Your task to perform on an android device: open app "Indeed Job Search" (install if not already installed) and go to login screen Image 0: 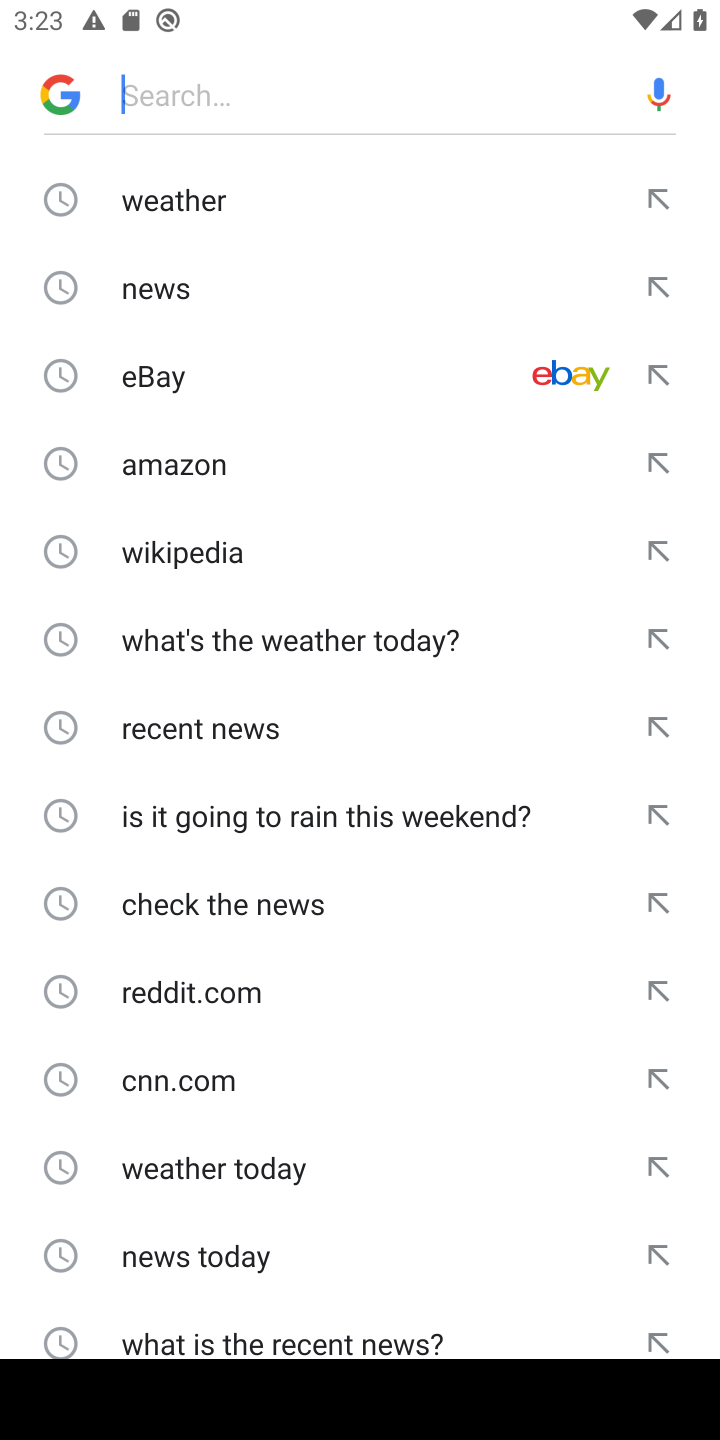
Step 0: press home button
Your task to perform on an android device: open app "Indeed Job Search" (install if not already installed) and go to login screen Image 1: 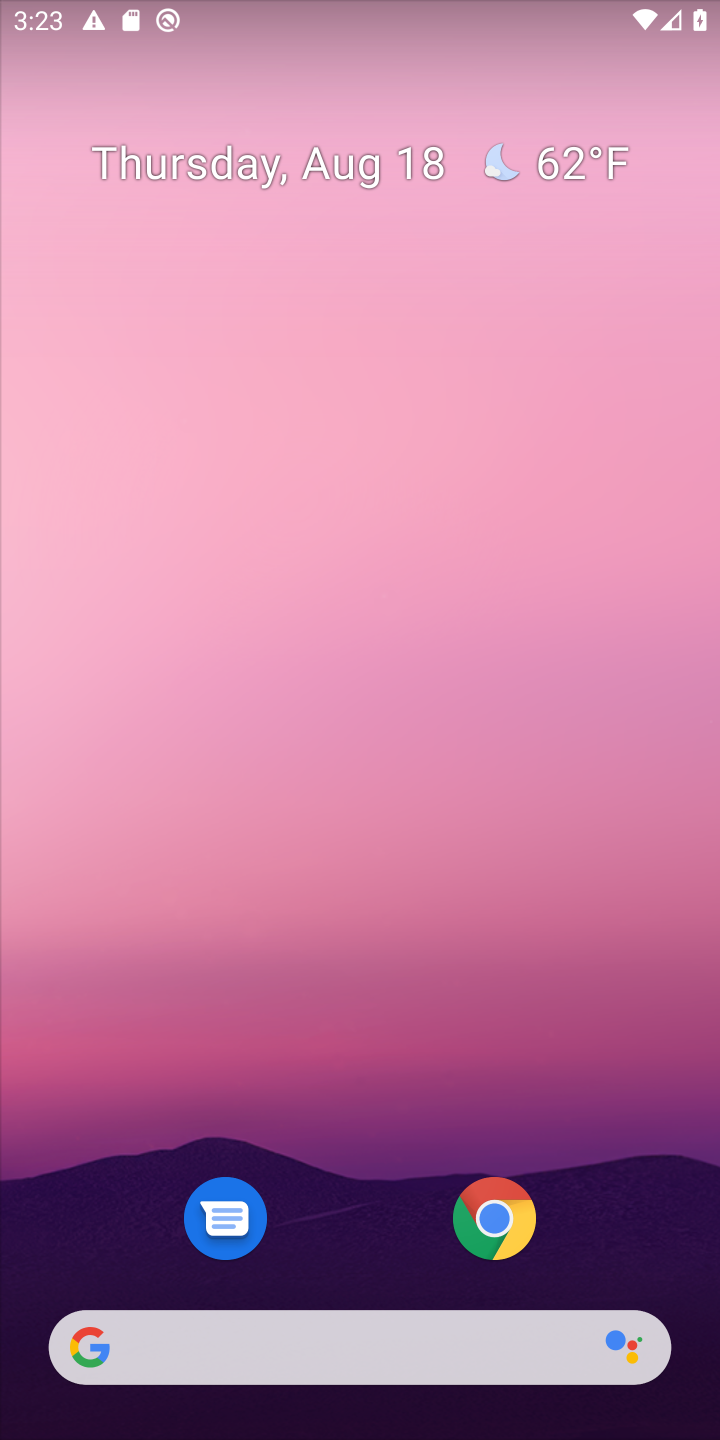
Step 1: drag from (343, 984) to (343, 411)
Your task to perform on an android device: open app "Indeed Job Search" (install if not already installed) and go to login screen Image 2: 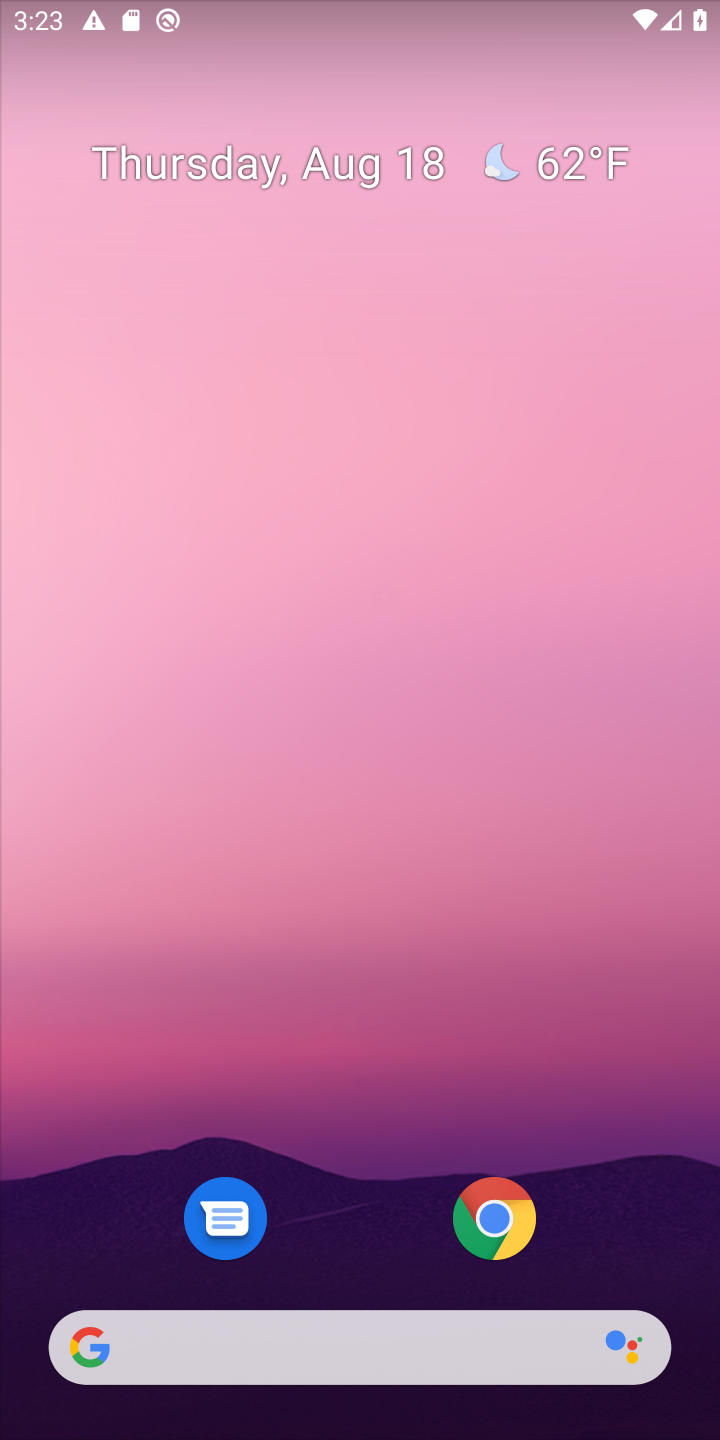
Step 2: drag from (386, 1087) to (391, 328)
Your task to perform on an android device: open app "Indeed Job Search" (install if not already installed) and go to login screen Image 3: 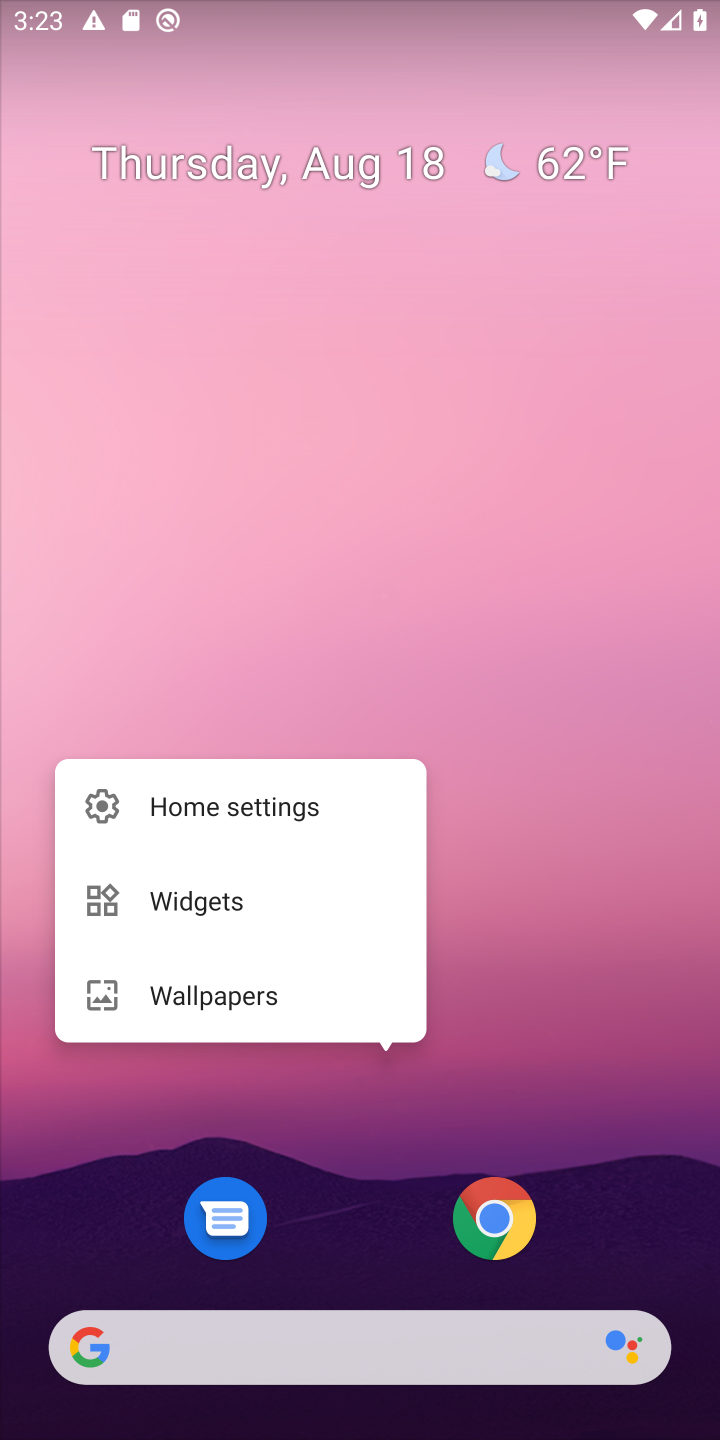
Step 3: click (405, 477)
Your task to perform on an android device: open app "Indeed Job Search" (install if not already installed) and go to login screen Image 4: 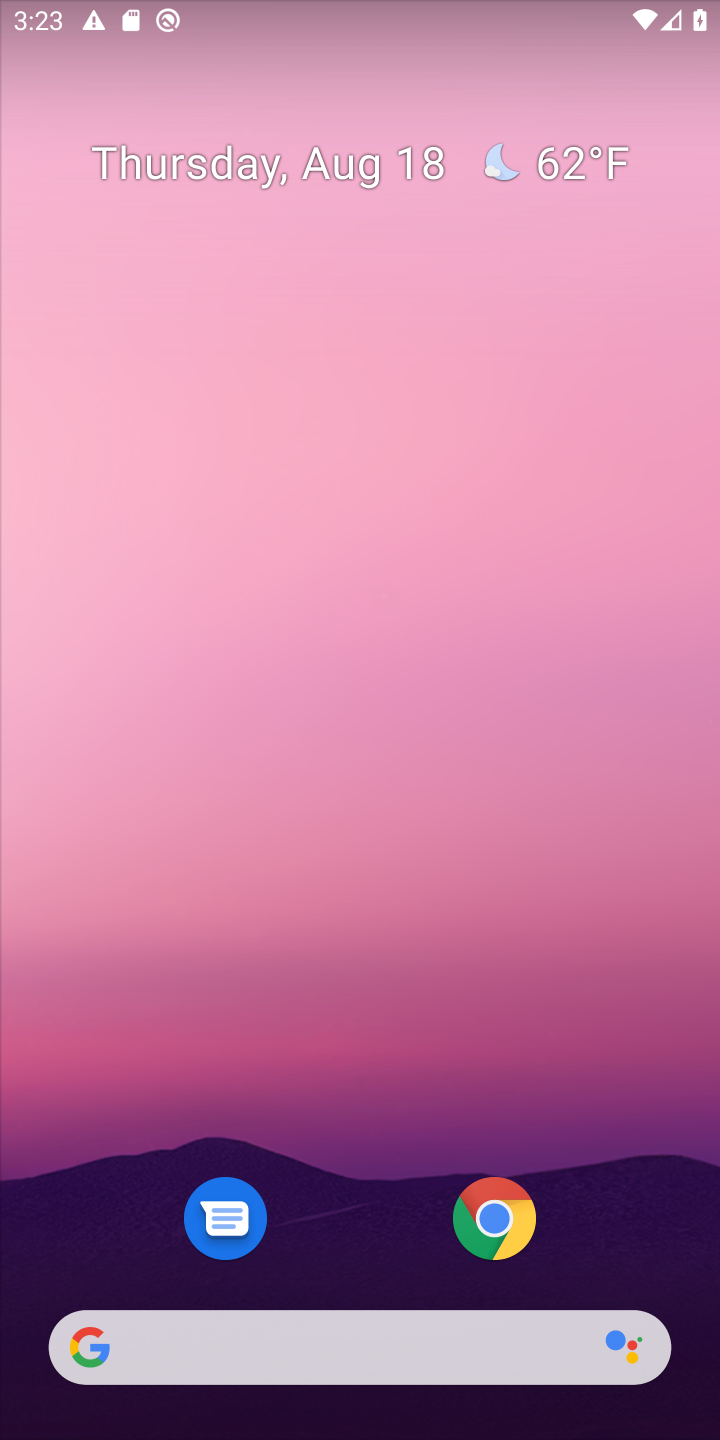
Step 4: drag from (353, 905) to (391, 305)
Your task to perform on an android device: open app "Indeed Job Search" (install if not already installed) and go to login screen Image 5: 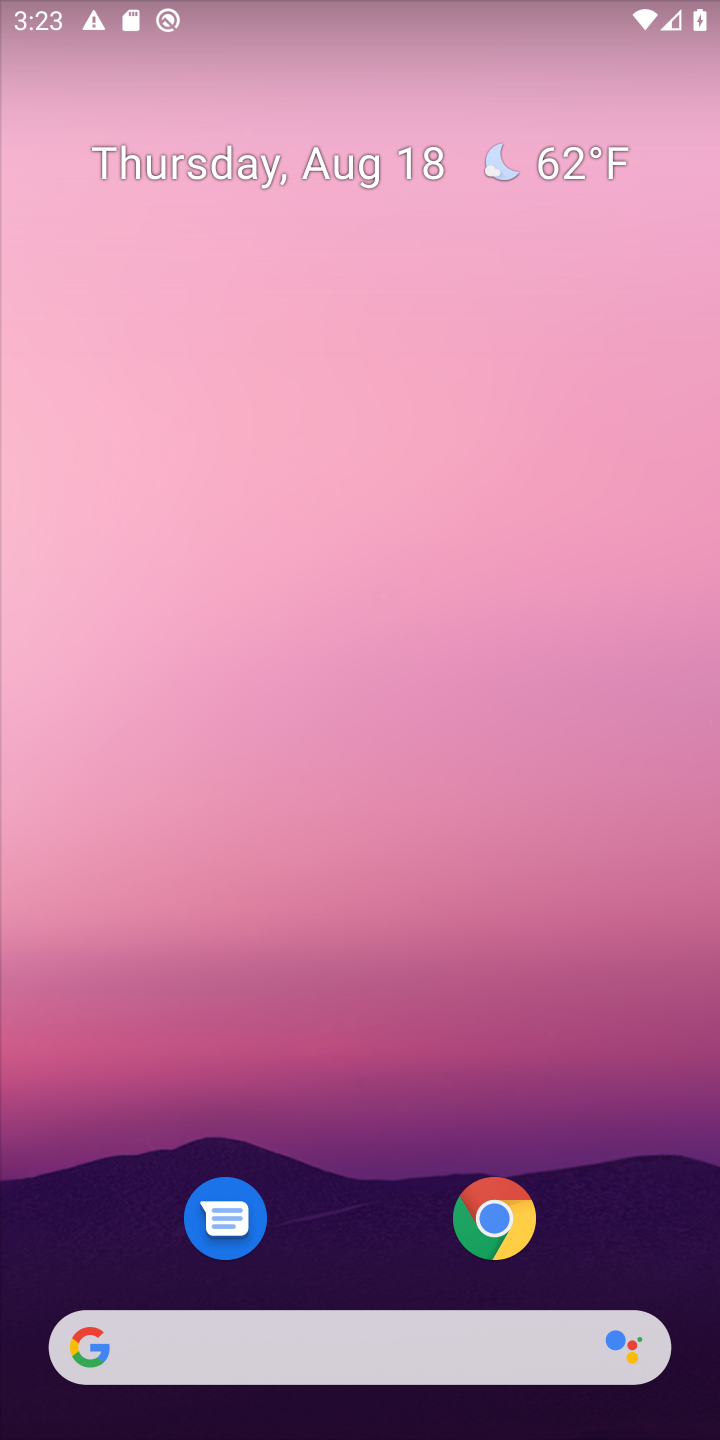
Step 5: drag from (348, 883) to (364, 198)
Your task to perform on an android device: open app "Indeed Job Search" (install if not already installed) and go to login screen Image 6: 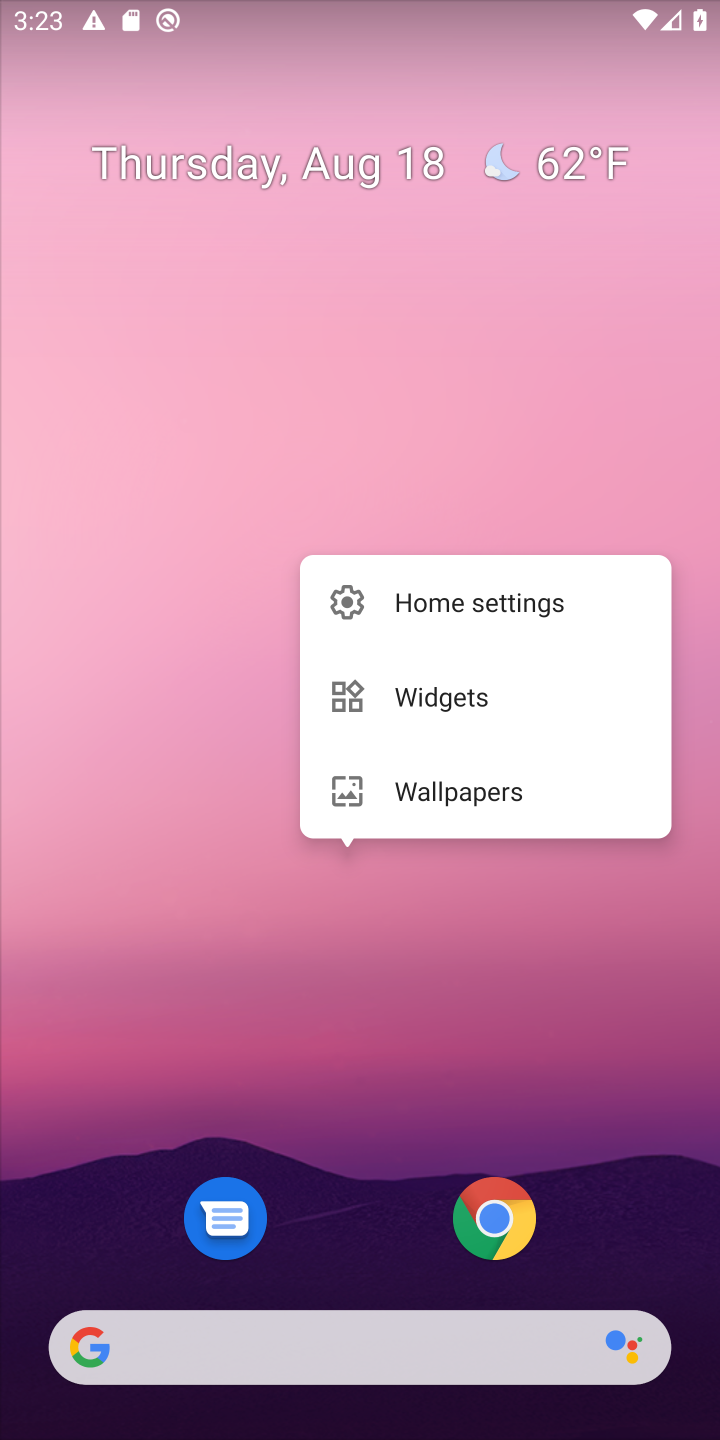
Step 6: click (297, 950)
Your task to perform on an android device: open app "Indeed Job Search" (install if not already installed) and go to login screen Image 7: 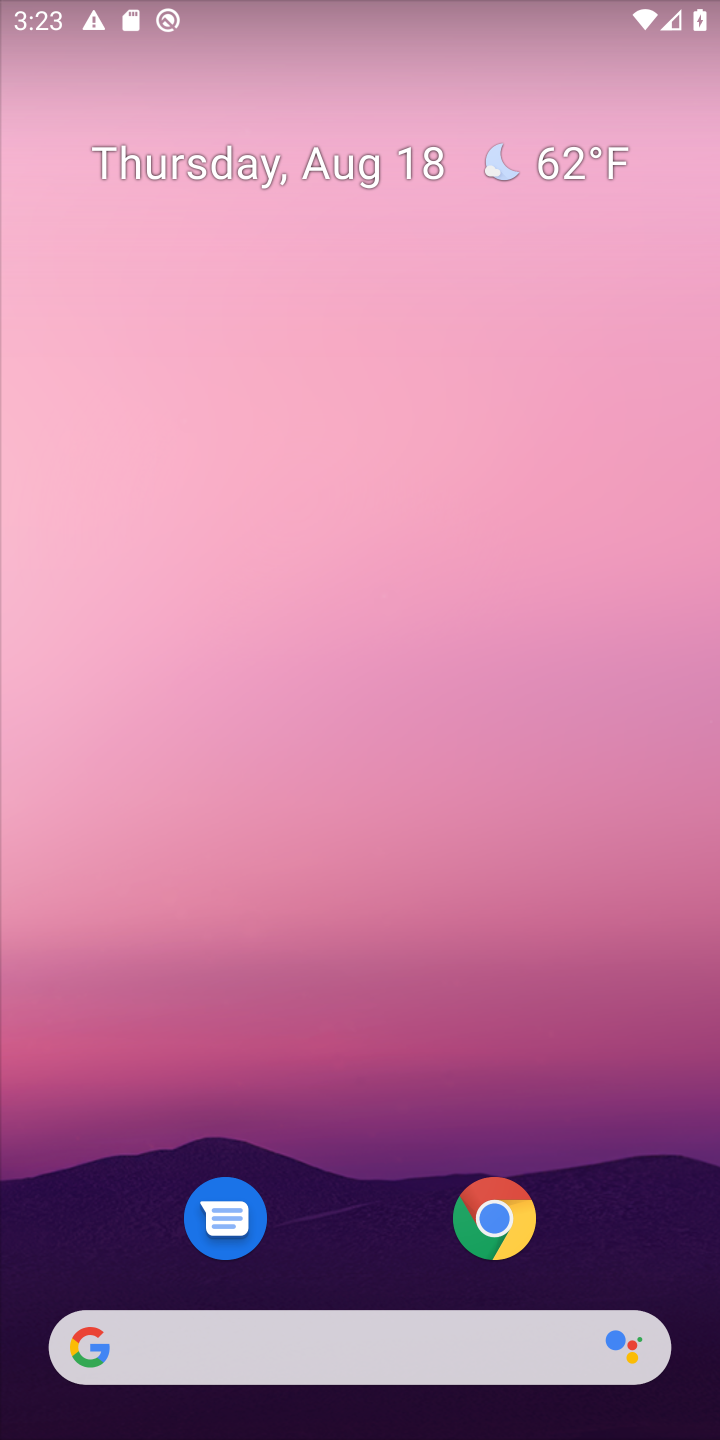
Step 7: drag from (352, 1158) to (369, 259)
Your task to perform on an android device: open app "Indeed Job Search" (install if not already installed) and go to login screen Image 8: 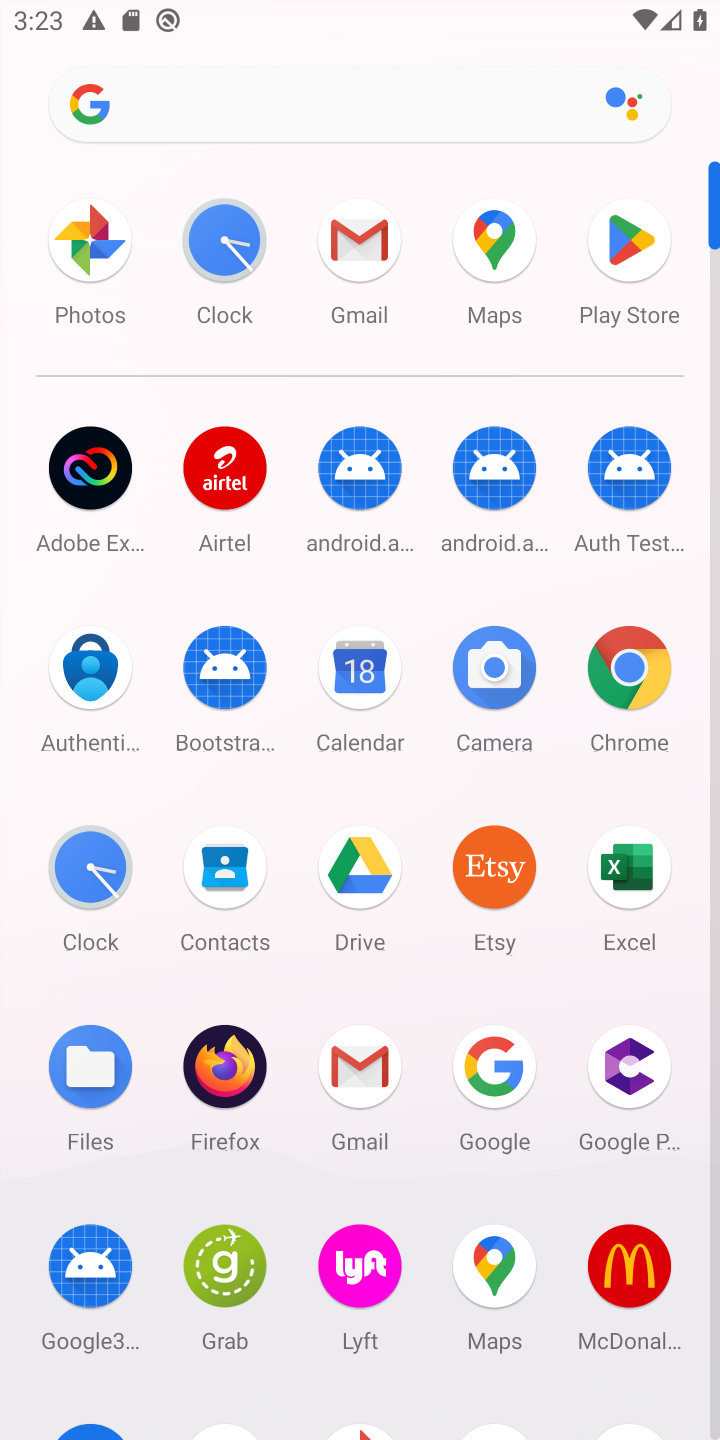
Step 8: click (640, 273)
Your task to perform on an android device: open app "Indeed Job Search" (install if not already installed) and go to login screen Image 9: 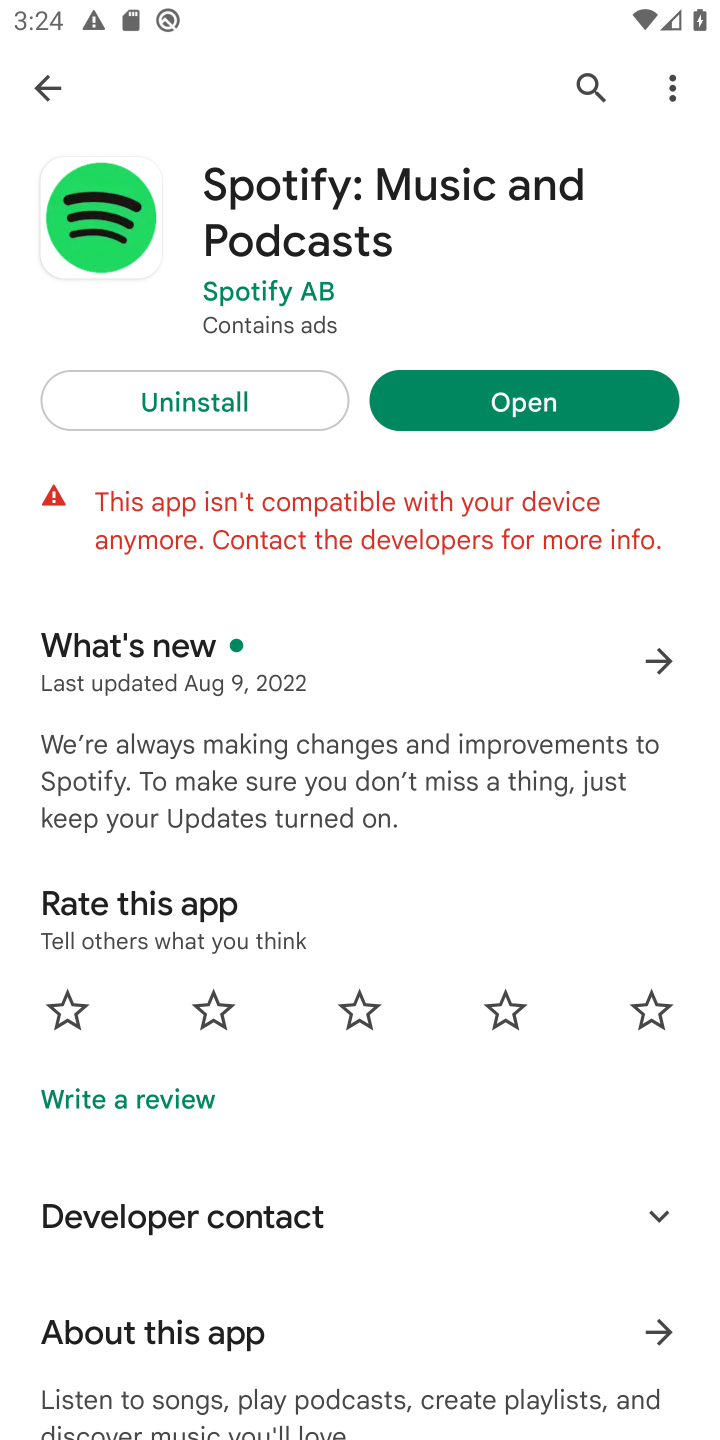
Step 9: click (587, 94)
Your task to perform on an android device: open app "Indeed Job Search" (install if not already installed) and go to login screen Image 10: 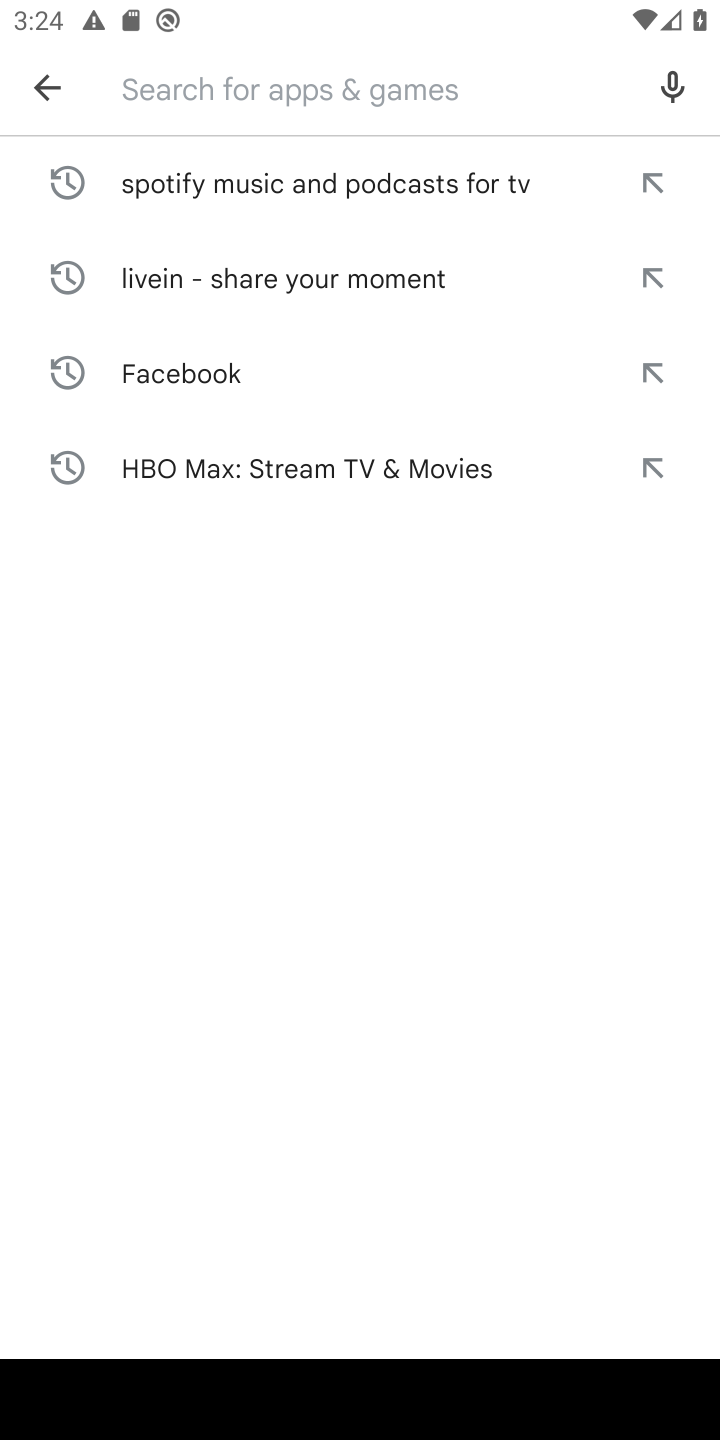
Step 10: type "Indeed Job Search"
Your task to perform on an android device: open app "Indeed Job Search" (install if not already installed) and go to login screen Image 11: 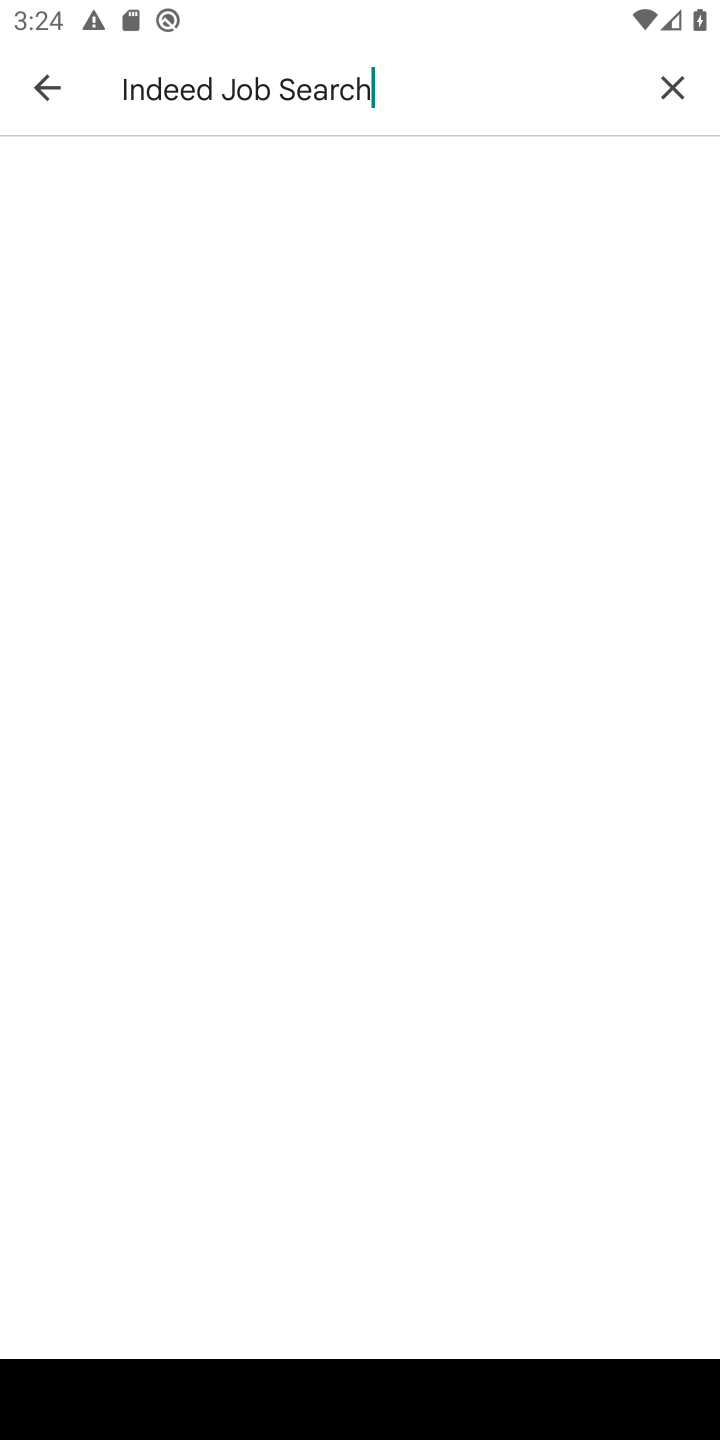
Step 11: type ""
Your task to perform on an android device: open app "Indeed Job Search" (install if not already installed) and go to login screen Image 12: 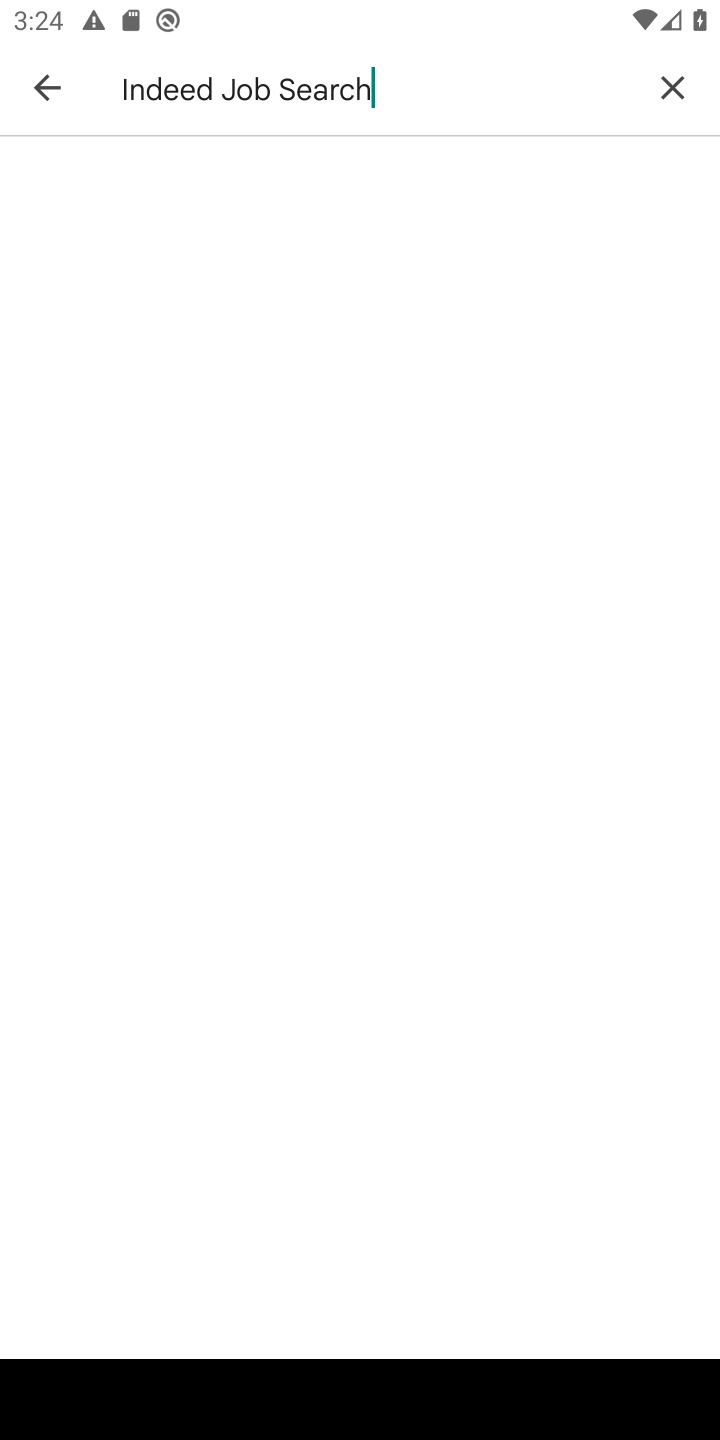
Step 12: task complete